Your task to perform on an android device: Go to Amazon Image 0: 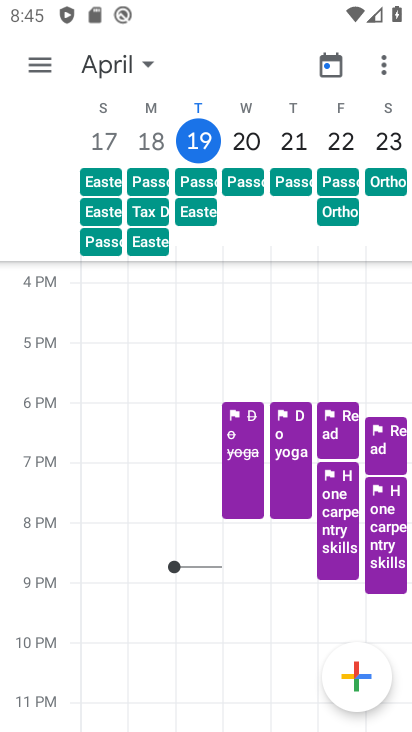
Step 0: press home button
Your task to perform on an android device: Go to Amazon Image 1: 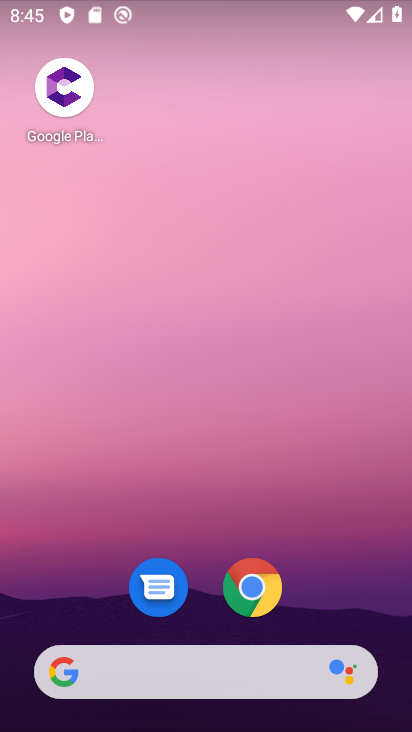
Step 1: click (249, 592)
Your task to perform on an android device: Go to Amazon Image 2: 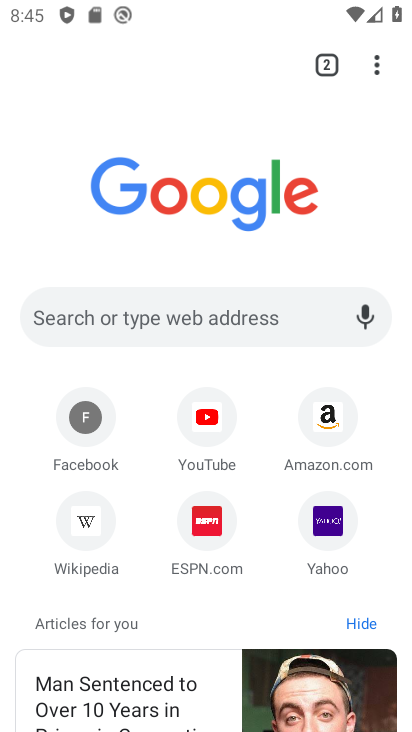
Step 2: click (326, 412)
Your task to perform on an android device: Go to Amazon Image 3: 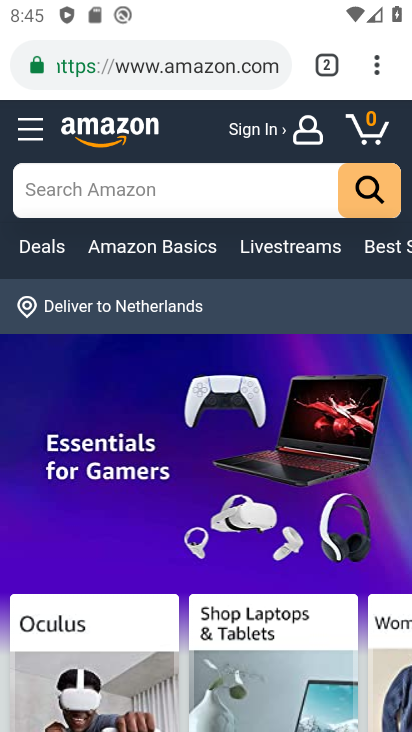
Step 3: task complete